Your task to perform on an android device: read, delete, or share a saved page in the chrome app Image 0: 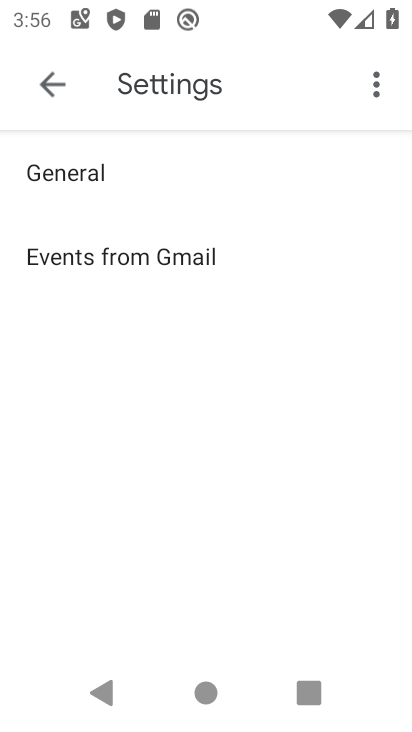
Step 0: press home button
Your task to perform on an android device: read, delete, or share a saved page in the chrome app Image 1: 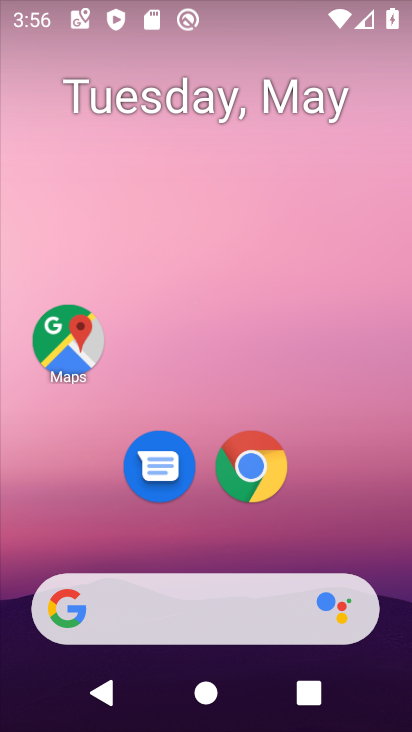
Step 1: click (246, 480)
Your task to perform on an android device: read, delete, or share a saved page in the chrome app Image 2: 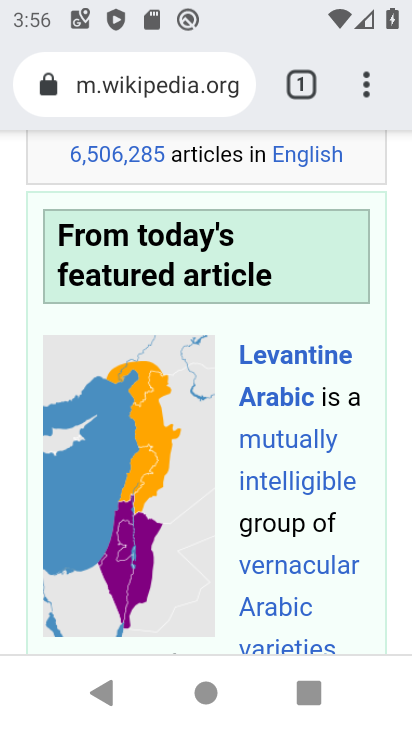
Step 2: click (367, 86)
Your task to perform on an android device: read, delete, or share a saved page in the chrome app Image 3: 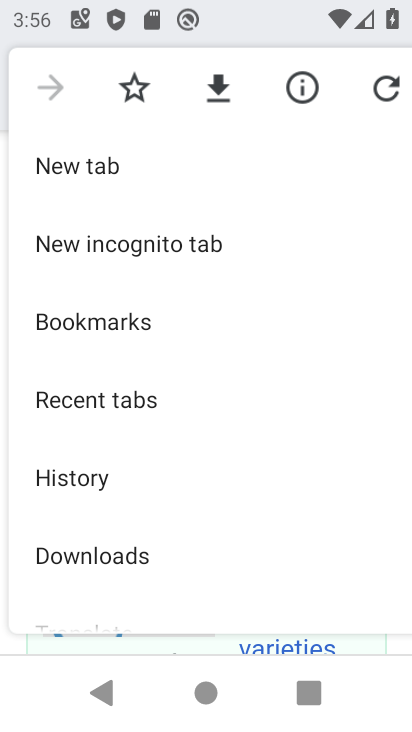
Step 3: click (120, 329)
Your task to perform on an android device: read, delete, or share a saved page in the chrome app Image 4: 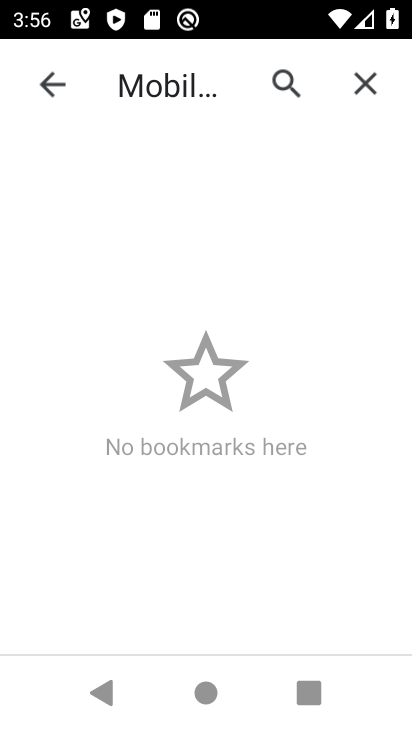
Step 4: task complete